Your task to perform on an android device: turn notification dots off Image 0: 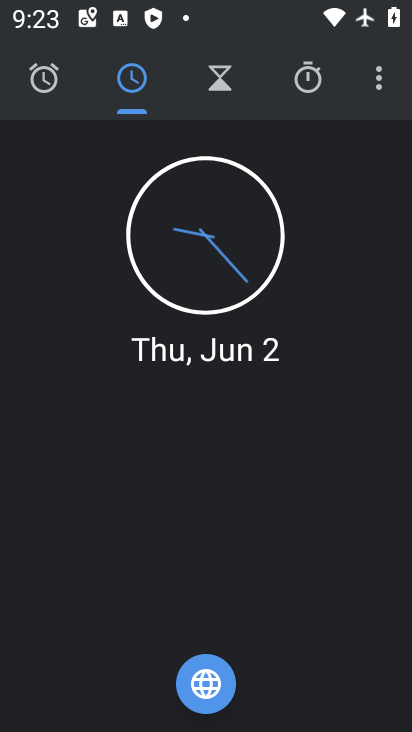
Step 0: press home button
Your task to perform on an android device: turn notification dots off Image 1: 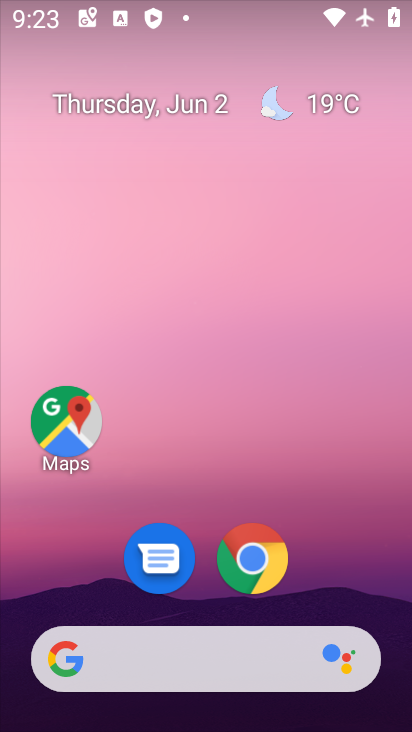
Step 1: drag from (376, 608) to (301, 4)
Your task to perform on an android device: turn notification dots off Image 2: 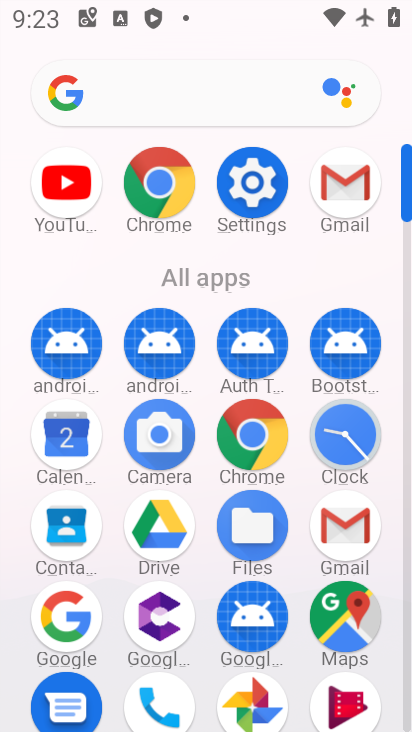
Step 2: click (408, 694)
Your task to perform on an android device: turn notification dots off Image 3: 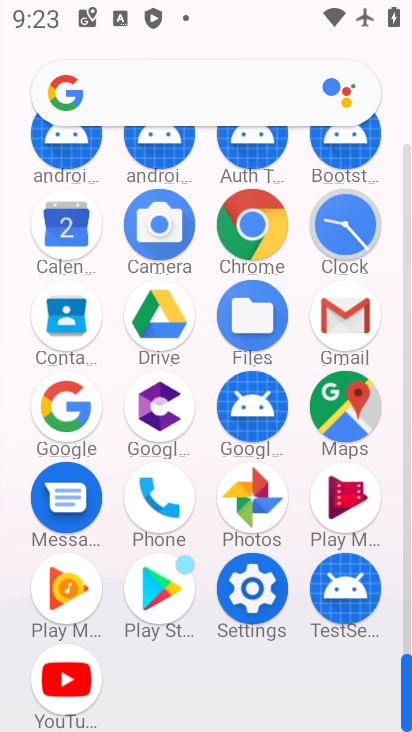
Step 3: click (252, 588)
Your task to perform on an android device: turn notification dots off Image 4: 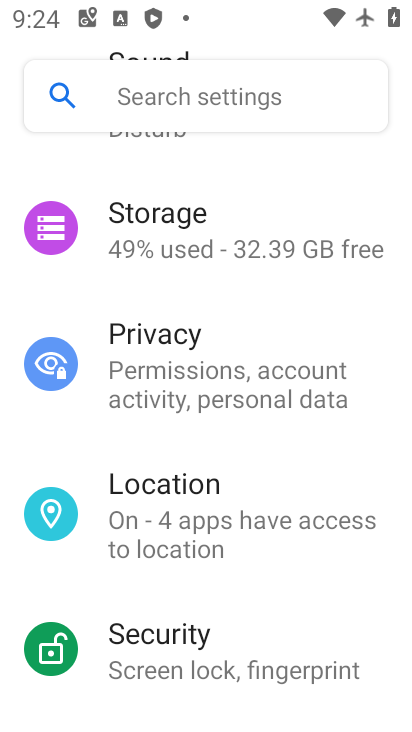
Step 4: drag from (307, 180) to (337, 566)
Your task to perform on an android device: turn notification dots off Image 5: 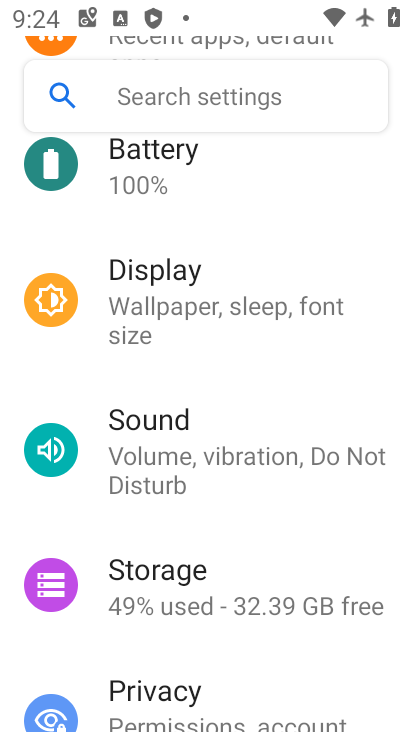
Step 5: drag from (321, 218) to (339, 574)
Your task to perform on an android device: turn notification dots off Image 6: 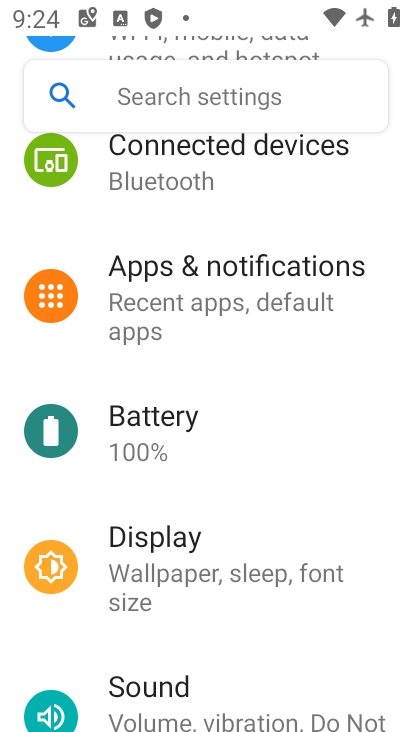
Step 6: click (173, 281)
Your task to perform on an android device: turn notification dots off Image 7: 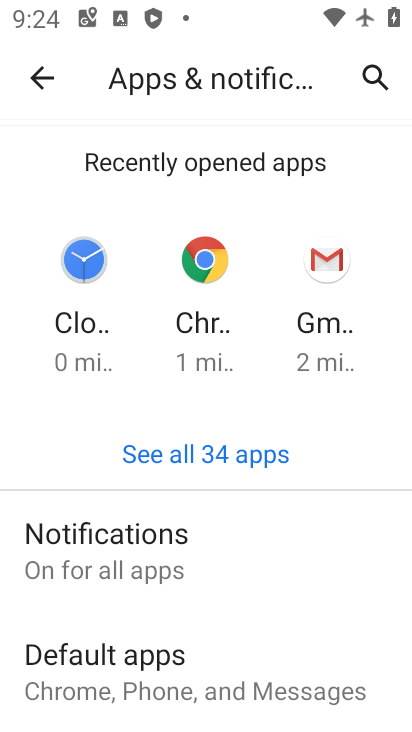
Step 7: click (128, 547)
Your task to perform on an android device: turn notification dots off Image 8: 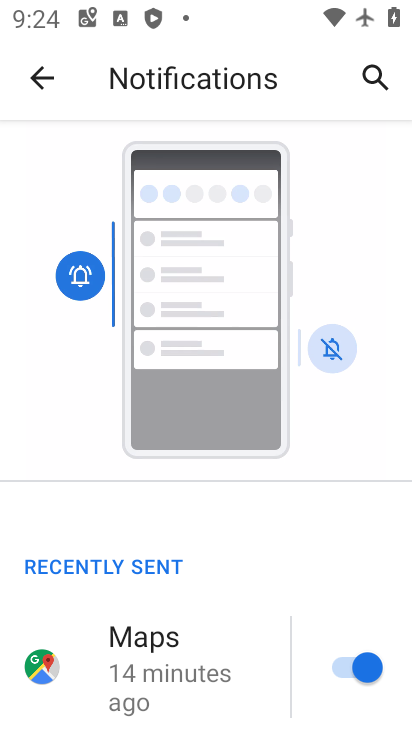
Step 8: drag from (284, 702) to (264, 151)
Your task to perform on an android device: turn notification dots off Image 9: 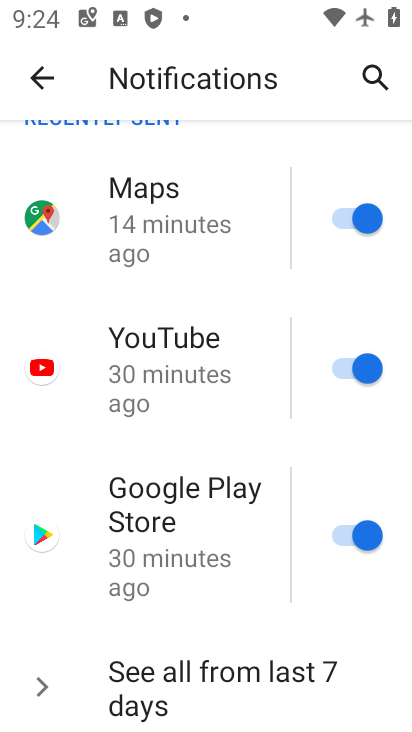
Step 9: drag from (272, 640) to (233, 347)
Your task to perform on an android device: turn notification dots off Image 10: 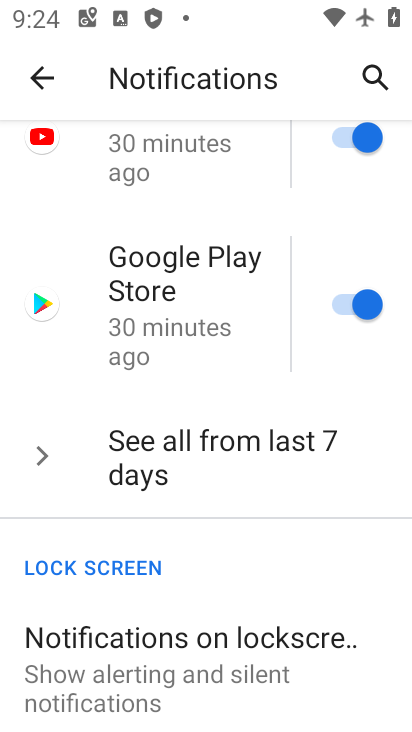
Step 10: drag from (275, 669) to (269, 322)
Your task to perform on an android device: turn notification dots off Image 11: 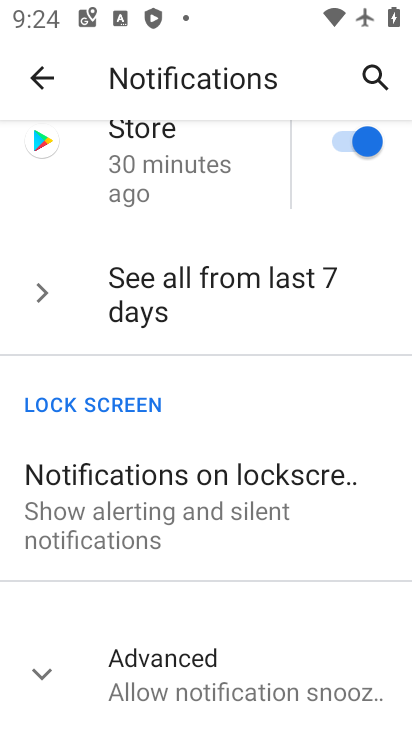
Step 11: click (37, 699)
Your task to perform on an android device: turn notification dots off Image 12: 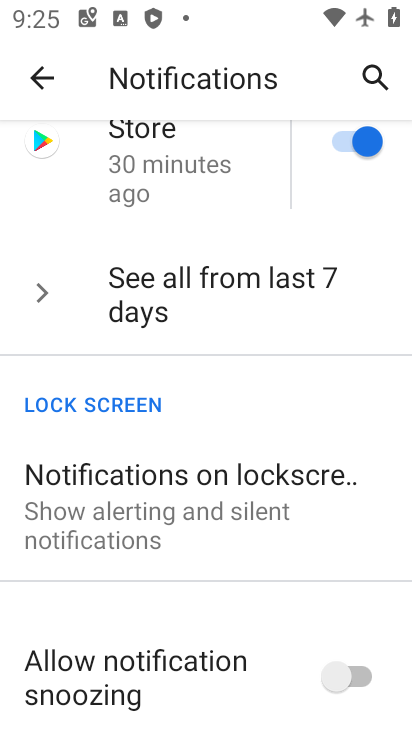
Step 12: drag from (197, 668) to (202, 272)
Your task to perform on an android device: turn notification dots off Image 13: 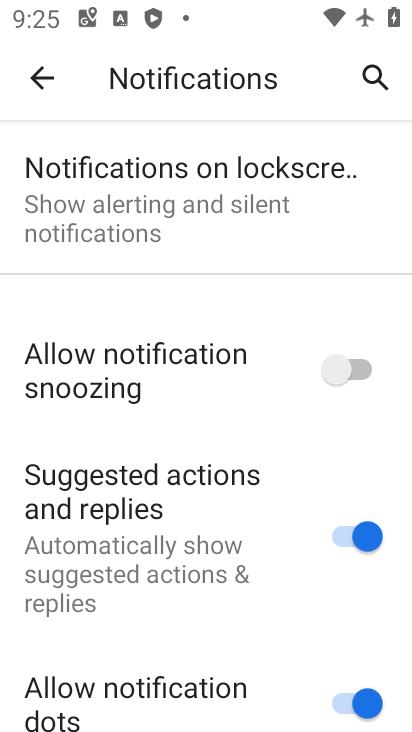
Step 13: drag from (290, 586) to (266, 220)
Your task to perform on an android device: turn notification dots off Image 14: 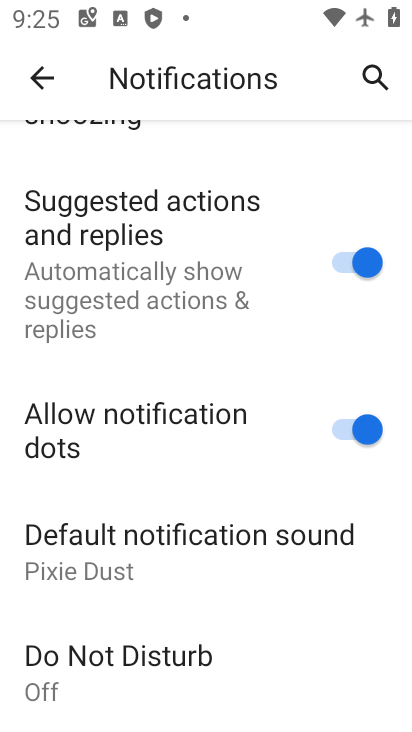
Step 14: click (338, 424)
Your task to perform on an android device: turn notification dots off Image 15: 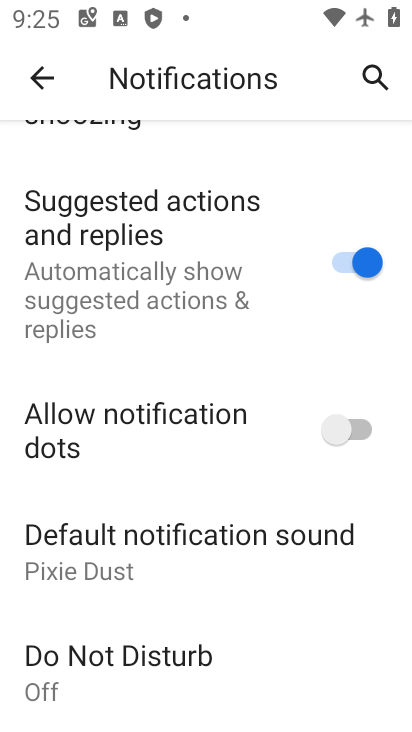
Step 15: task complete